Your task to perform on an android device: Go to Android settings Image 0: 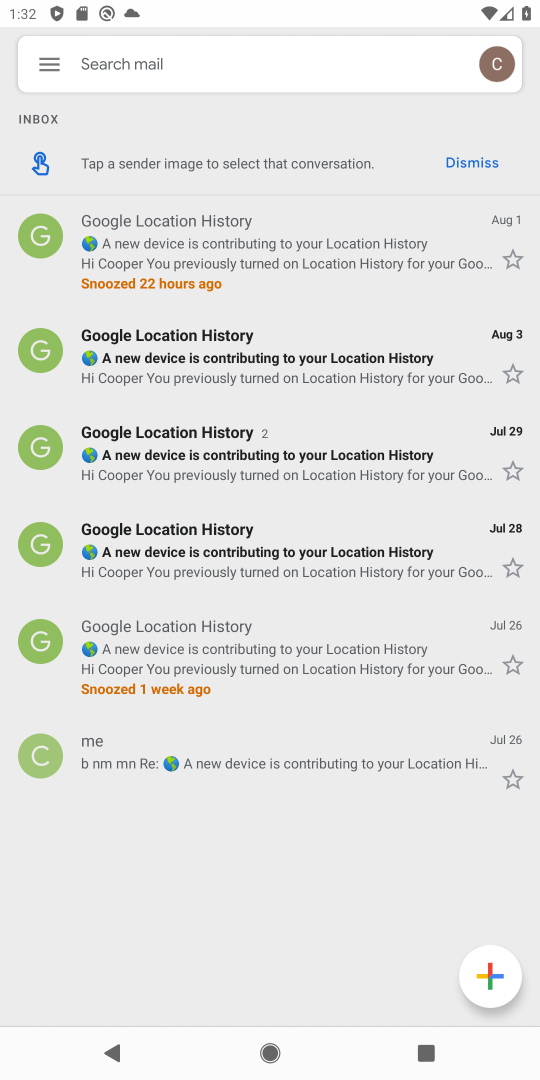
Step 0: press home button
Your task to perform on an android device: Go to Android settings Image 1: 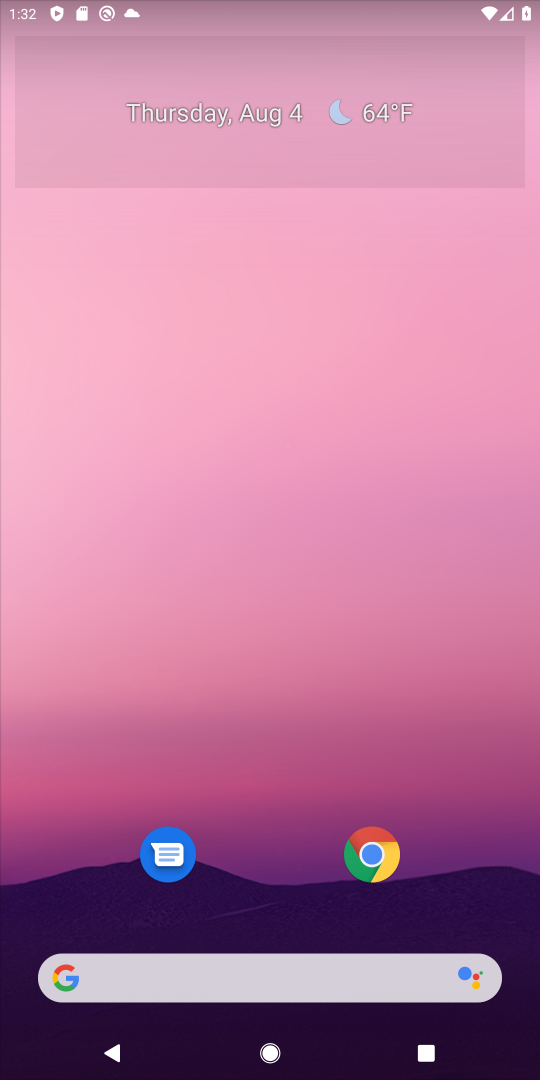
Step 1: drag from (379, 677) to (307, 119)
Your task to perform on an android device: Go to Android settings Image 2: 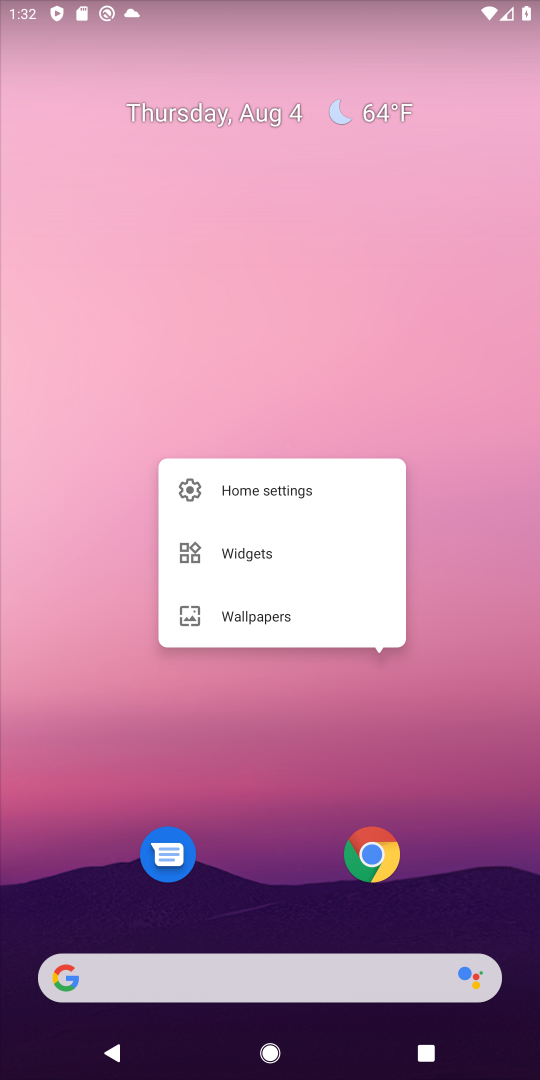
Step 2: click (258, 761)
Your task to perform on an android device: Go to Android settings Image 3: 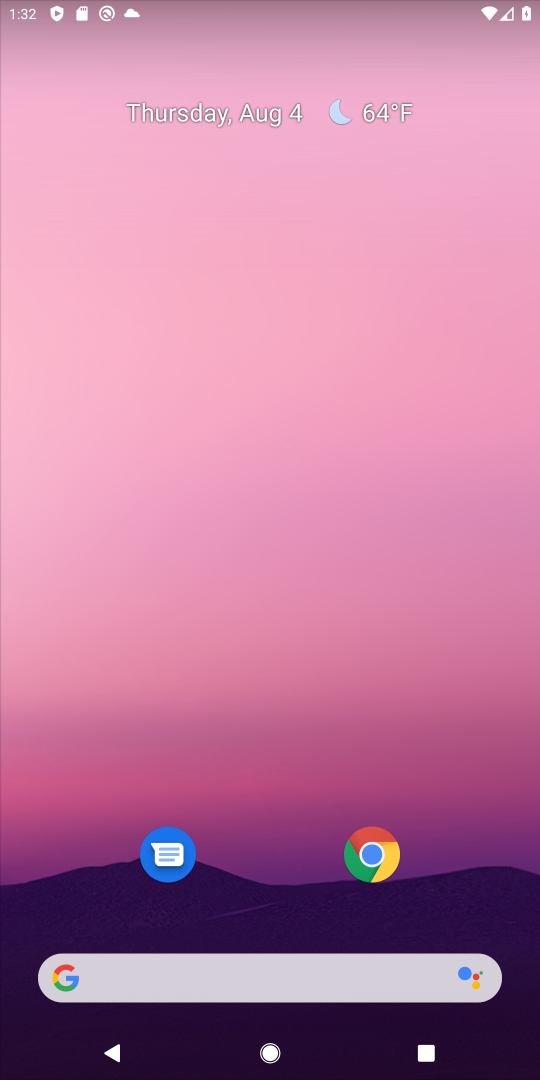
Step 3: drag from (258, 761) to (265, 156)
Your task to perform on an android device: Go to Android settings Image 4: 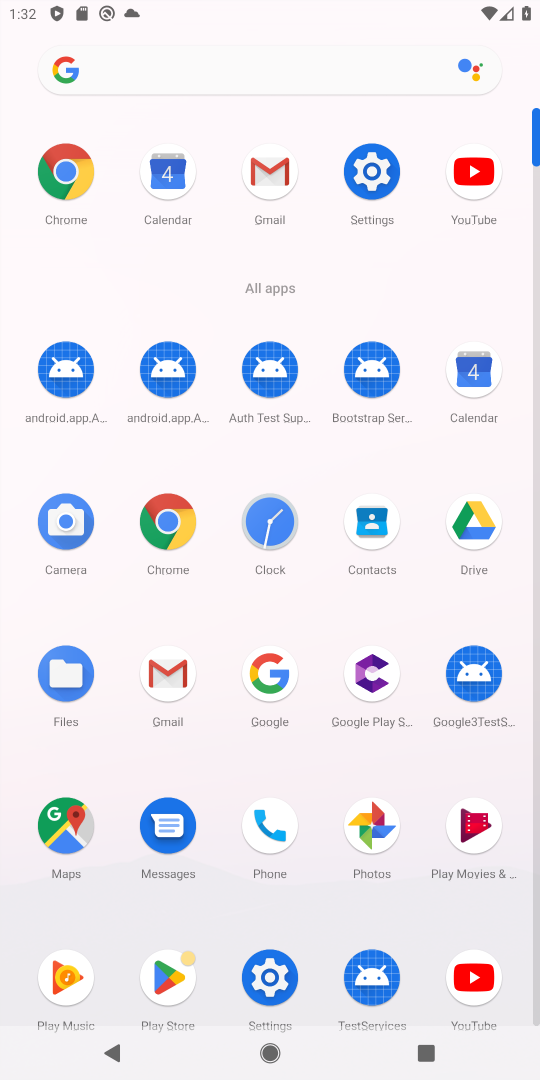
Step 4: click (372, 179)
Your task to perform on an android device: Go to Android settings Image 5: 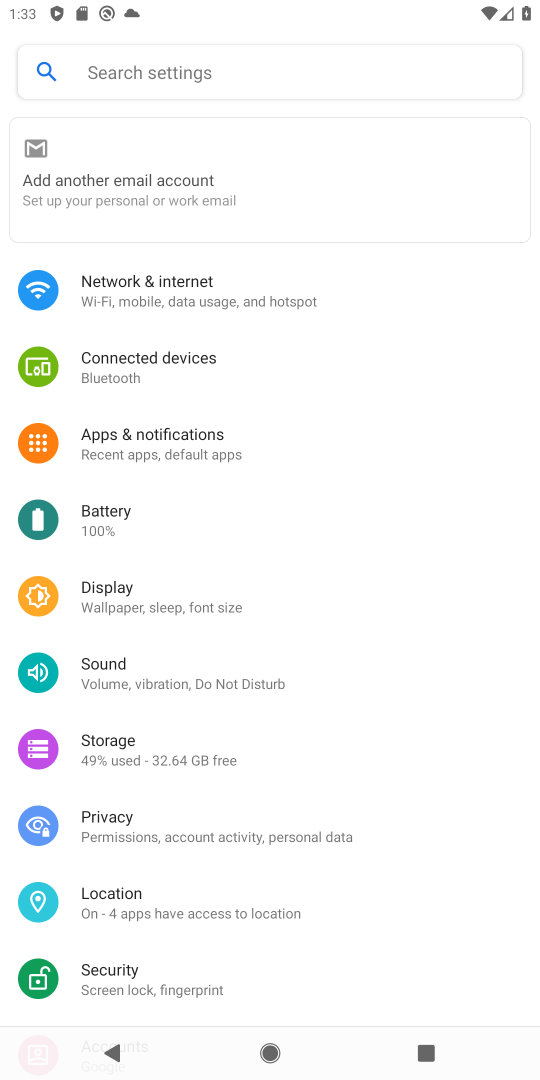
Step 5: task complete